Your task to perform on an android device: What's on my calendar today? Image 0: 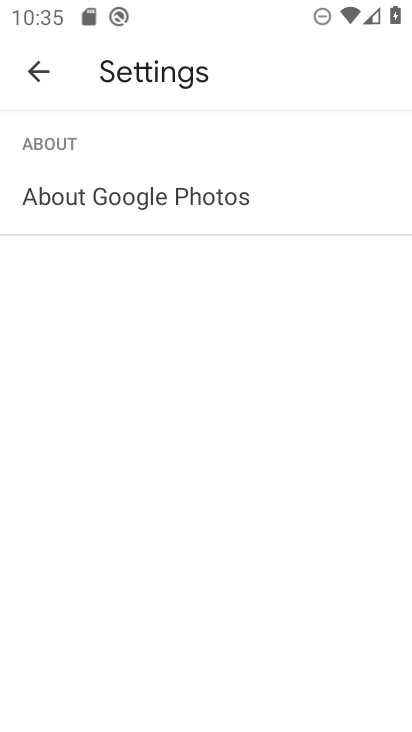
Step 0: press home button
Your task to perform on an android device: What's on my calendar today? Image 1: 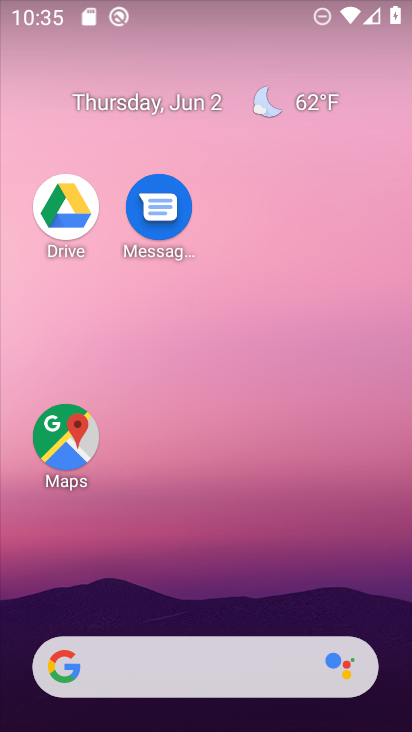
Step 1: drag from (205, 629) to (201, 83)
Your task to perform on an android device: What's on my calendar today? Image 2: 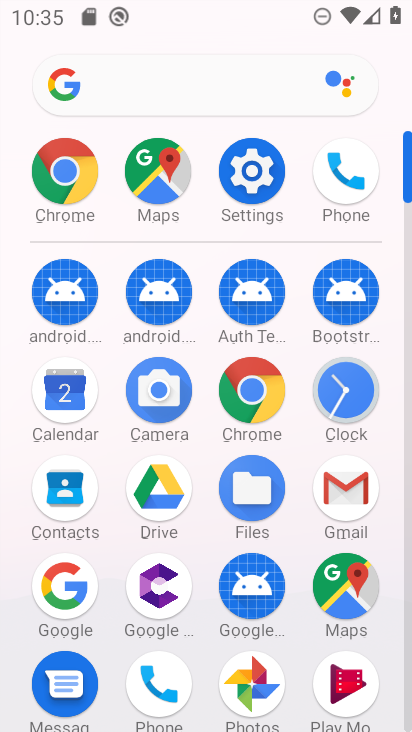
Step 2: click (57, 388)
Your task to perform on an android device: What's on my calendar today? Image 3: 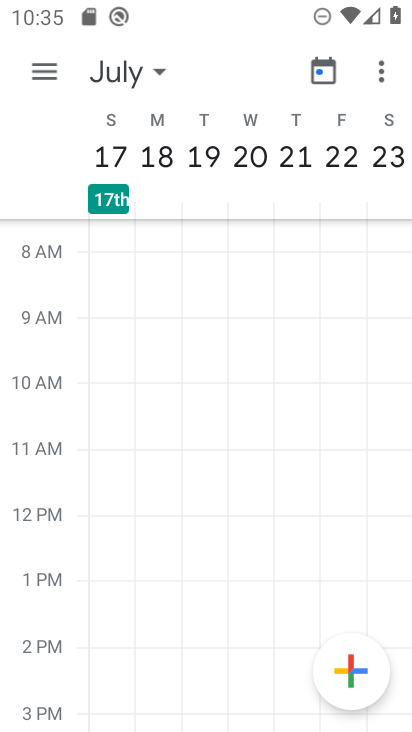
Step 3: click (326, 58)
Your task to perform on an android device: What's on my calendar today? Image 4: 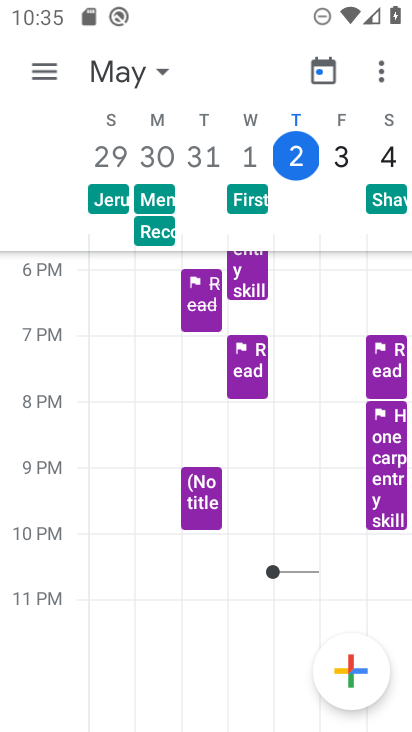
Step 4: click (327, 157)
Your task to perform on an android device: What's on my calendar today? Image 5: 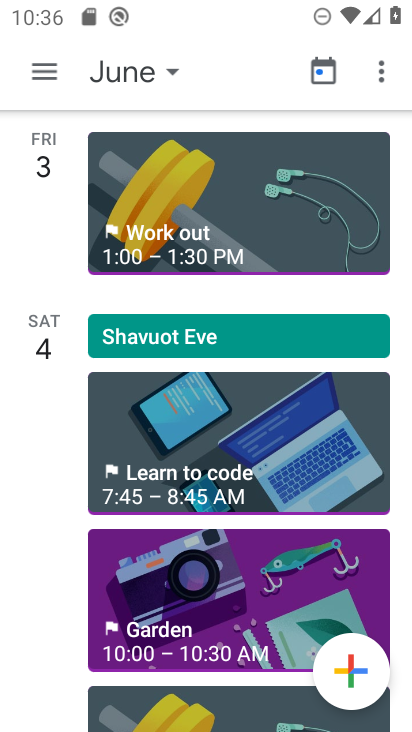
Step 5: task complete